Your task to perform on an android device: Go to Maps Image 0: 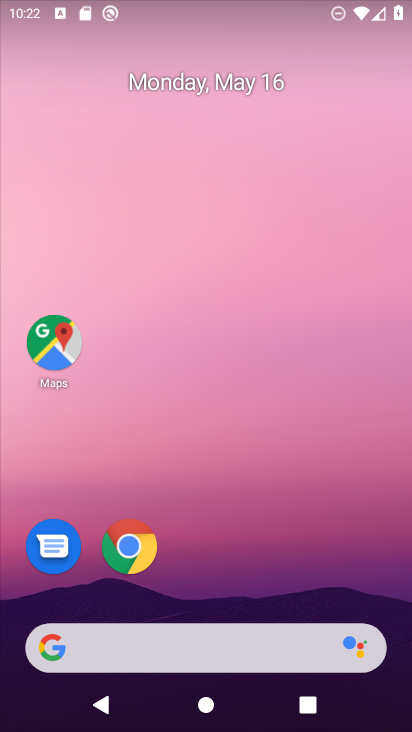
Step 0: click (62, 346)
Your task to perform on an android device: Go to Maps Image 1: 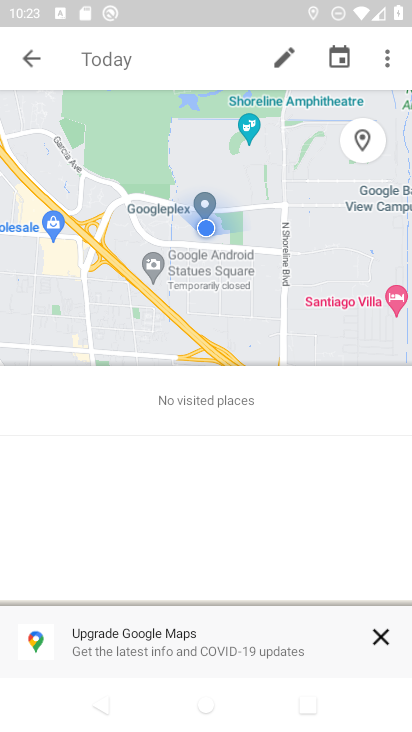
Step 1: task complete